Your task to perform on an android device: choose inbox layout in the gmail app Image 0: 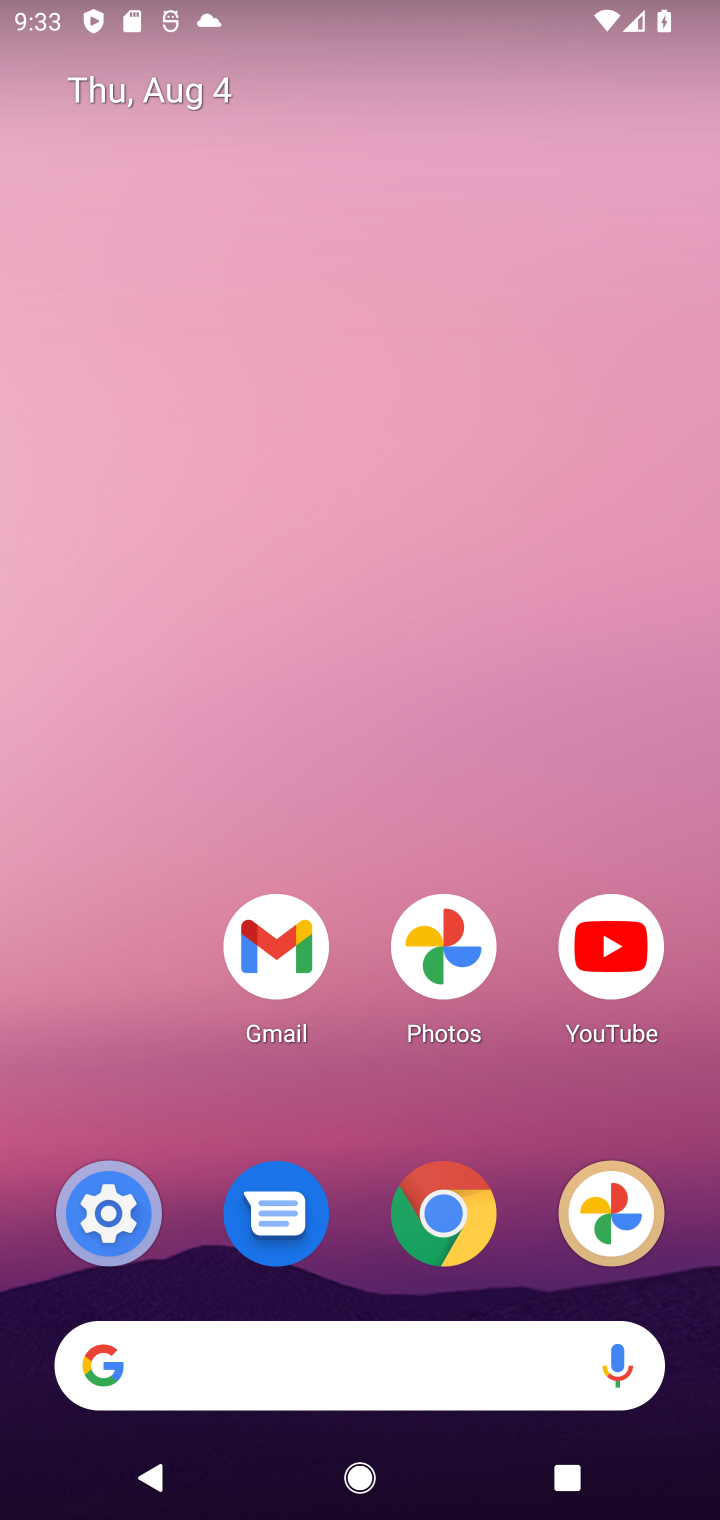
Step 0: click (276, 936)
Your task to perform on an android device: choose inbox layout in the gmail app Image 1: 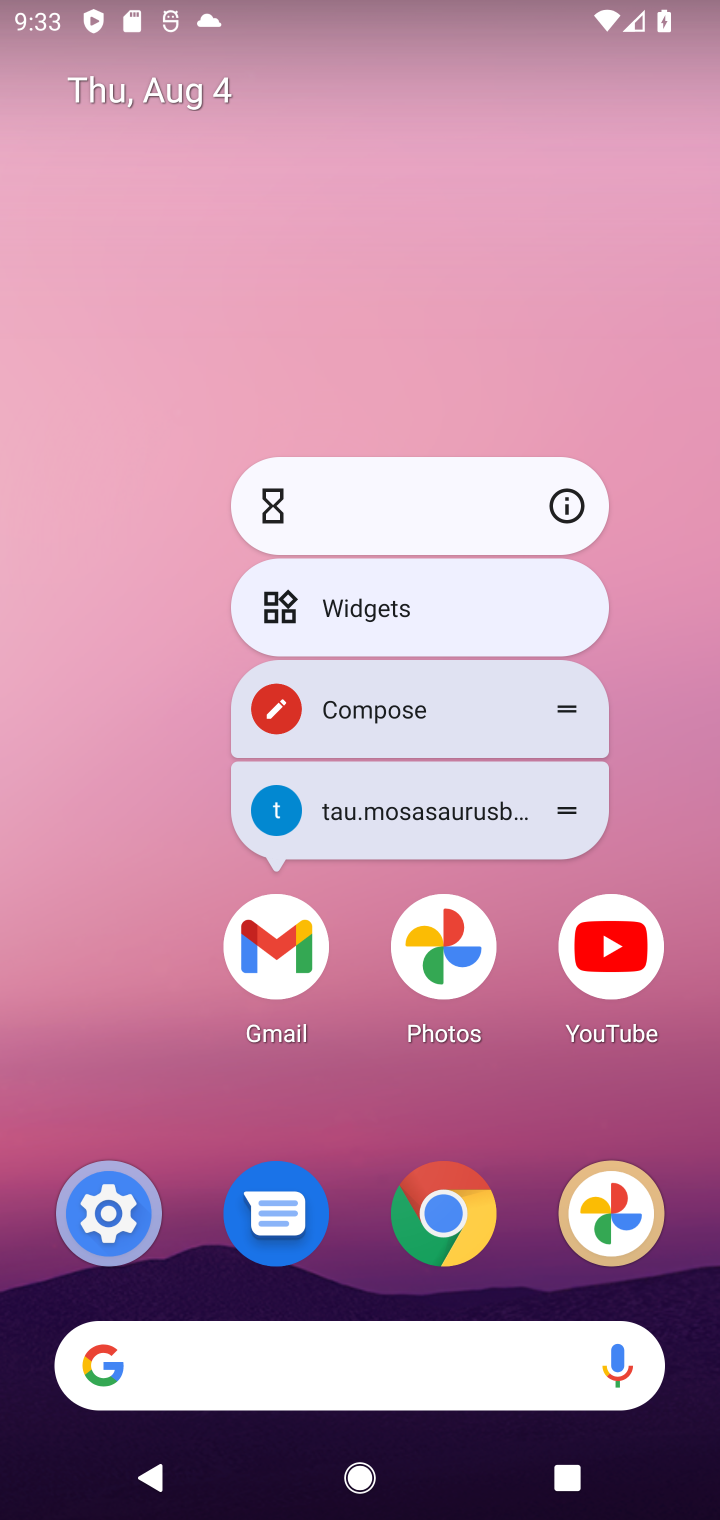
Step 1: click (265, 934)
Your task to perform on an android device: choose inbox layout in the gmail app Image 2: 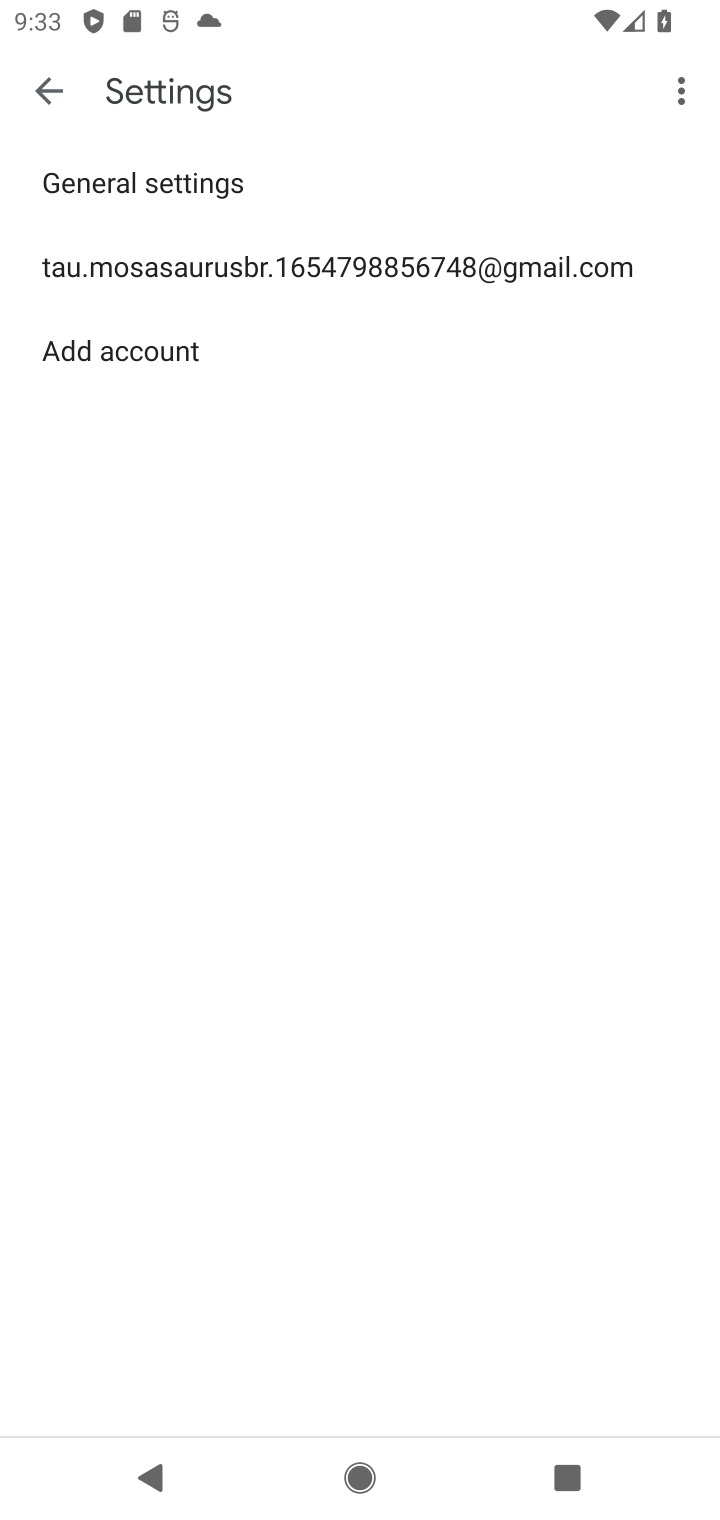
Step 2: click (126, 261)
Your task to perform on an android device: choose inbox layout in the gmail app Image 3: 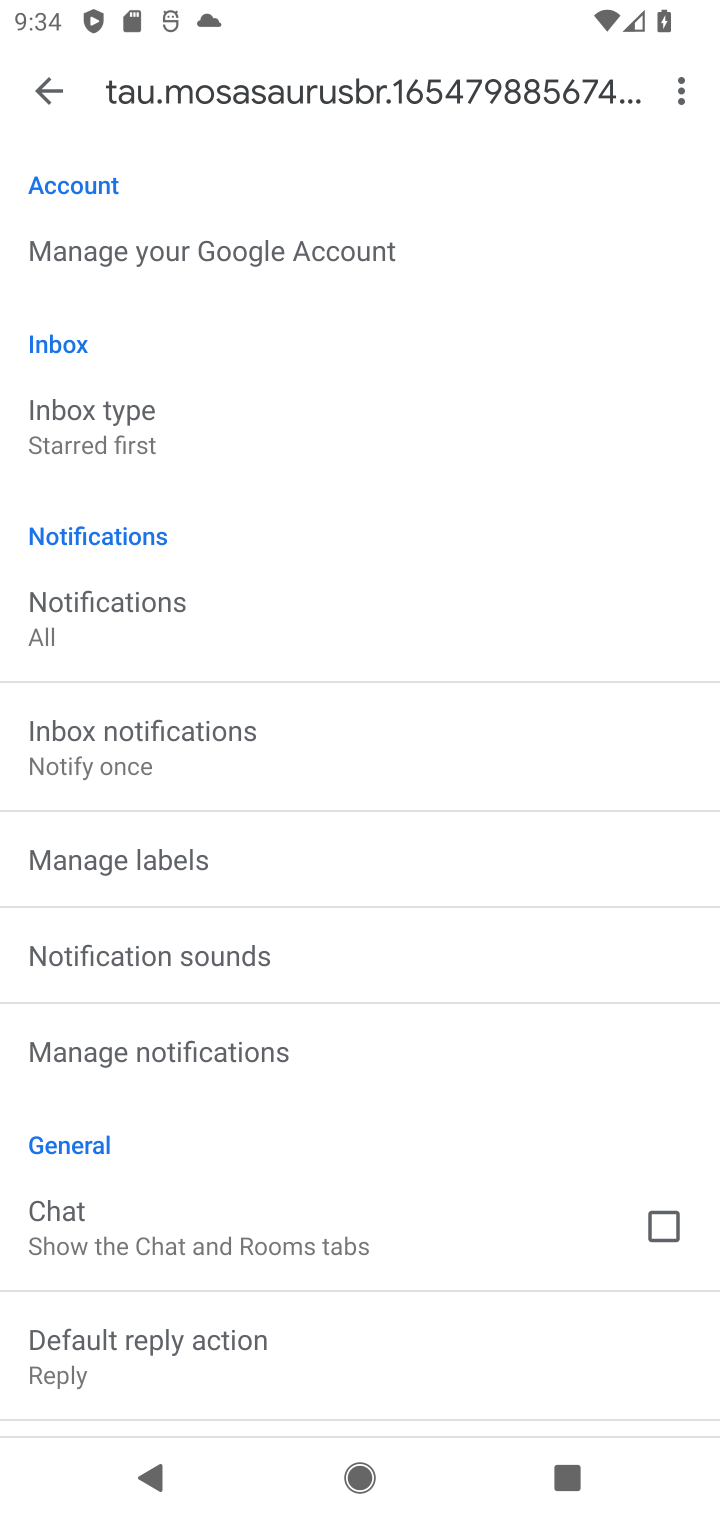
Step 3: click (199, 428)
Your task to perform on an android device: choose inbox layout in the gmail app Image 4: 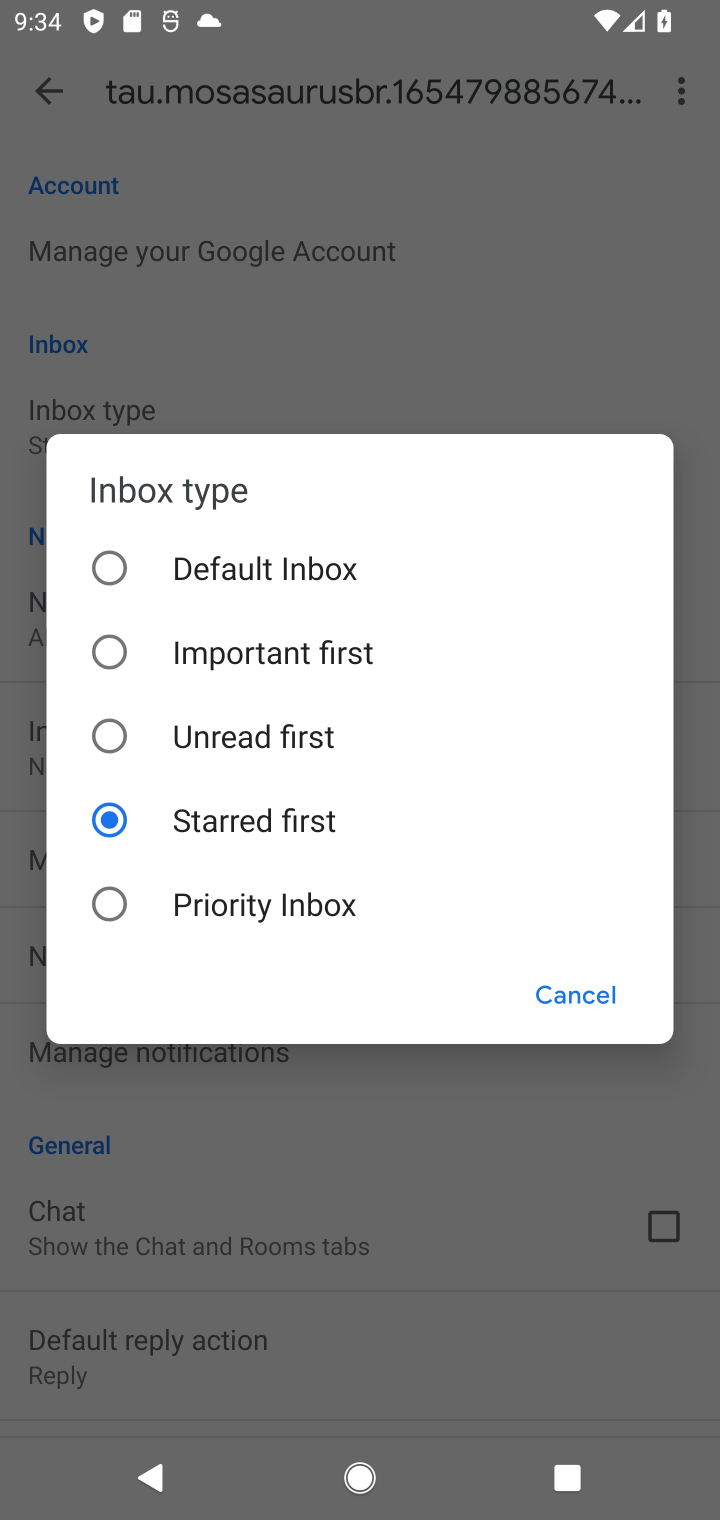
Step 4: click (116, 560)
Your task to perform on an android device: choose inbox layout in the gmail app Image 5: 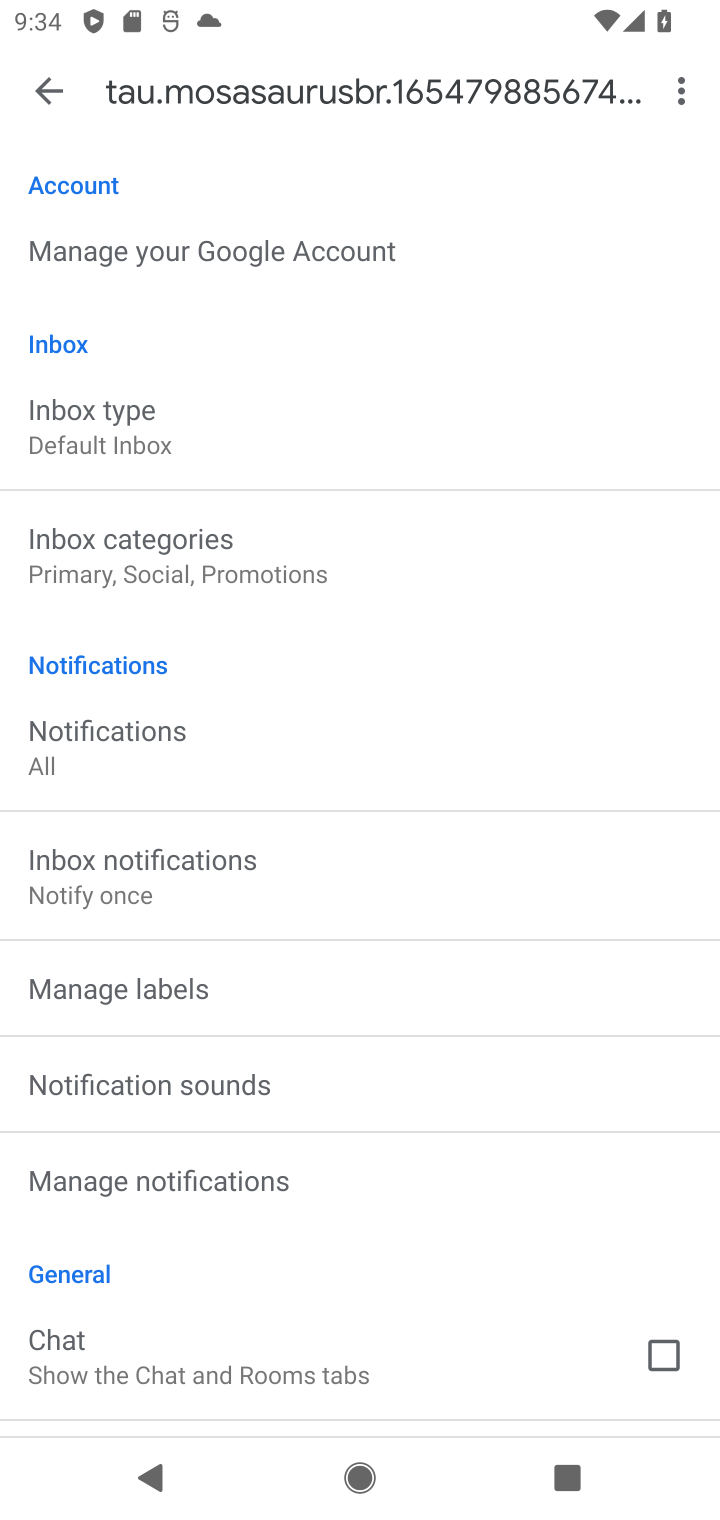
Step 5: task complete